Your task to perform on an android device: Go to sound settings Image 0: 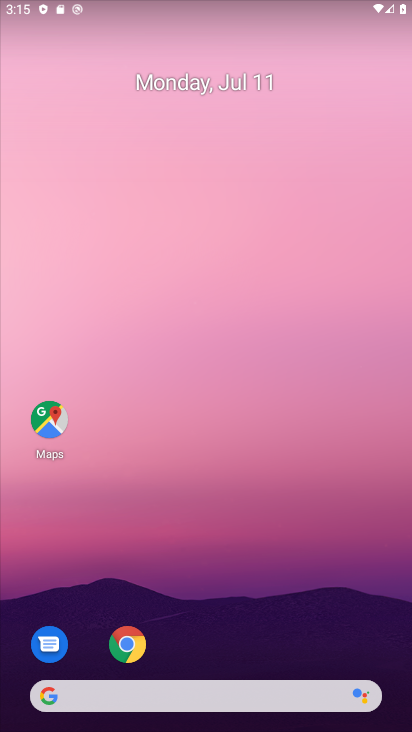
Step 0: drag from (122, 619) to (129, 300)
Your task to perform on an android device: Go to sound settings Image 1: 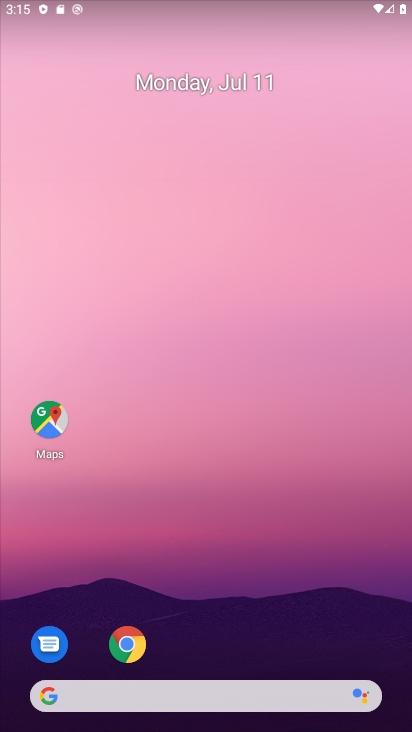
Step 1: drag from (270, 668) to (235, 171)
Your task to perform on an android device: Go to sound settings Image 2: 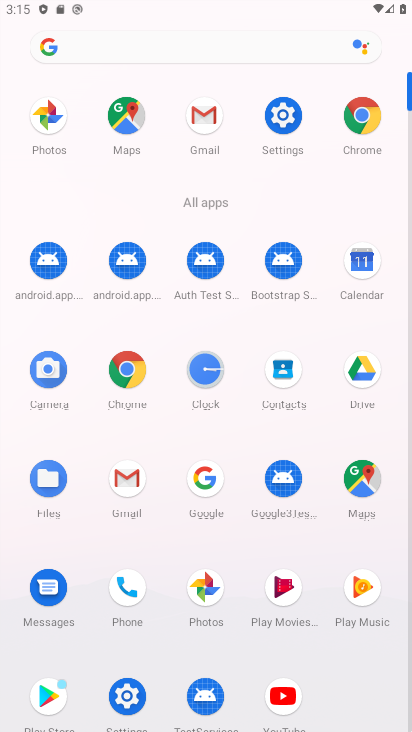
Step 2: click (284, 118)
Your task to perform on an android device: Go to sound settings Image 3: 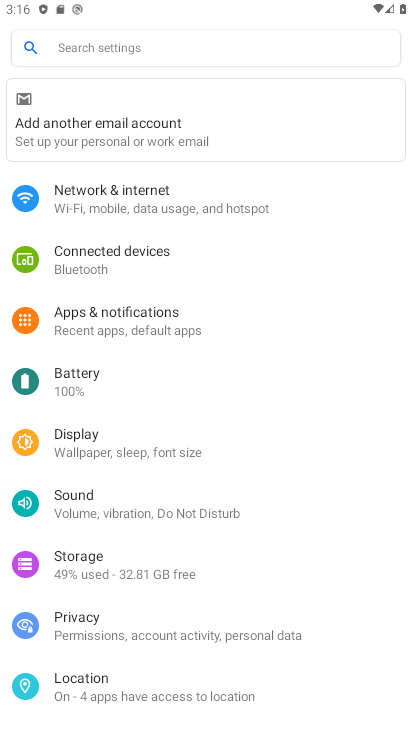
Step 3: click (140, 515)
Your task to perform on an android device: Go to sound settings Image 4: 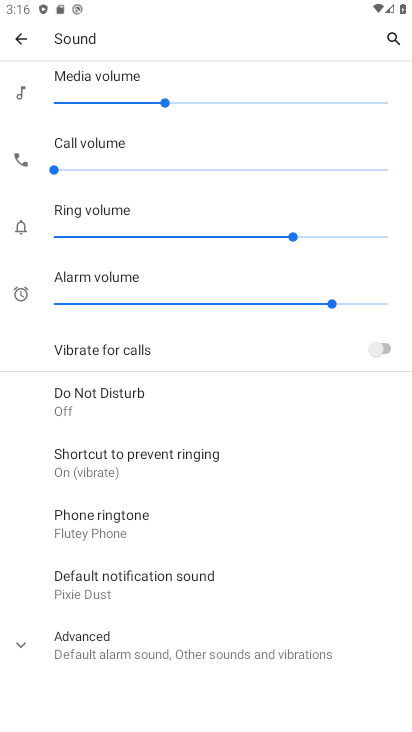
Step 4: task complete